Your task to perform on an android device: toggle sleep mode Image 0: 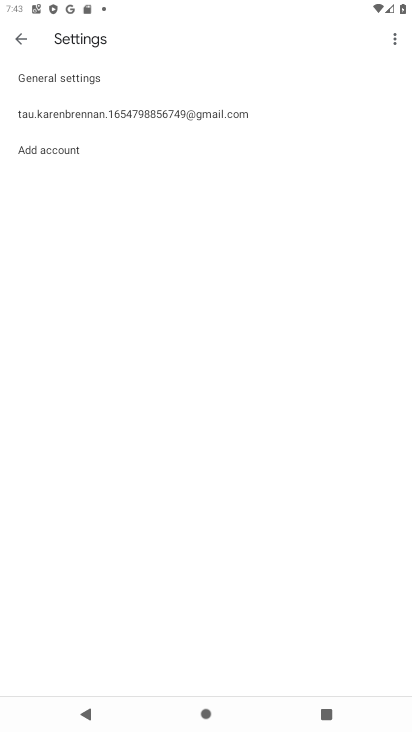
Step 0: press home button
Your task to perform on an android device: toggle sleep mode Image 1: 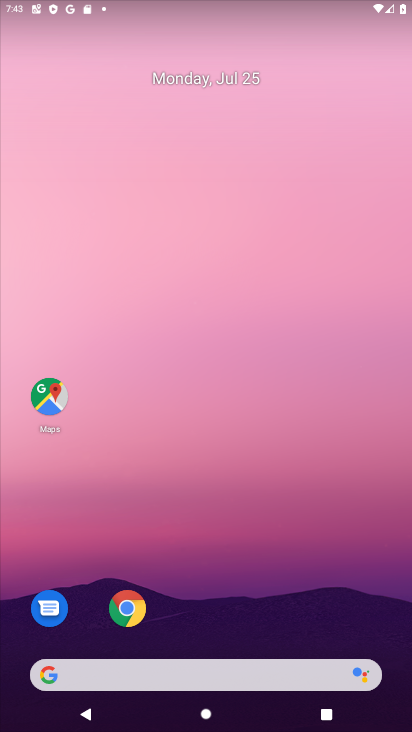
Step 1: drag from (225, 639) to (253, 111)
Your task to perform on an android device: toggle sleep mode Image 2: 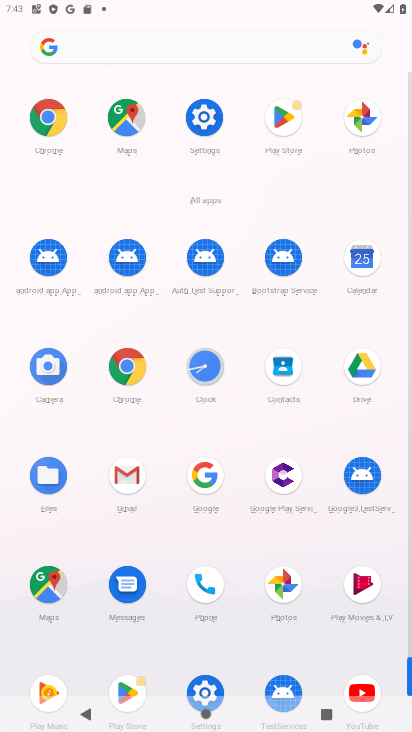
Step 2: click (215, 129)
Your task to perform on an android device: toggle sleep mode Image 3: 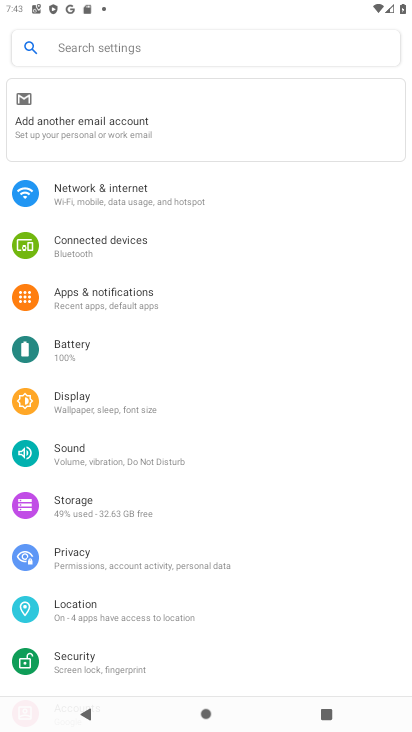
Step 3: click (94, 413)
Your task to perform on an android device: toggle sleep mode Image 4: 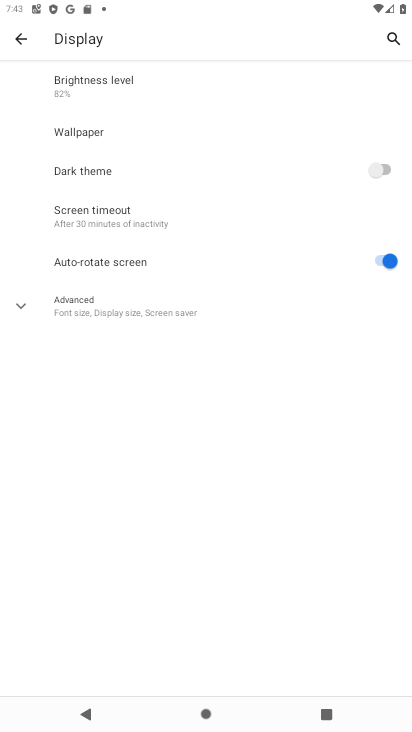
Step 4: click (93, 308)
Your task to perform on an android device: toggle sleep mode Image 5: 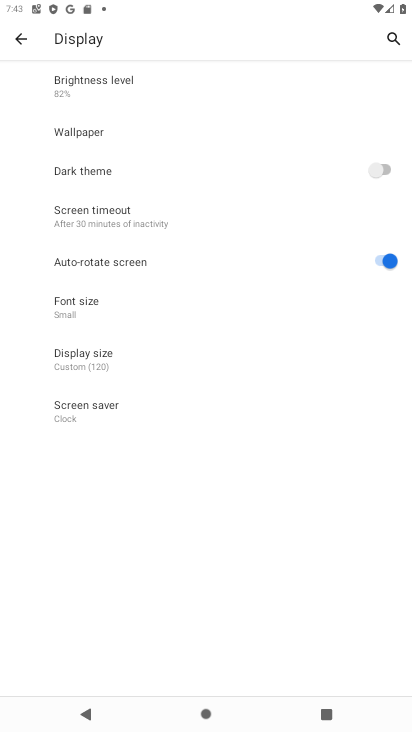
Step 5: task complete